Your task to perform on an android device: Go to battery settings Image 0: 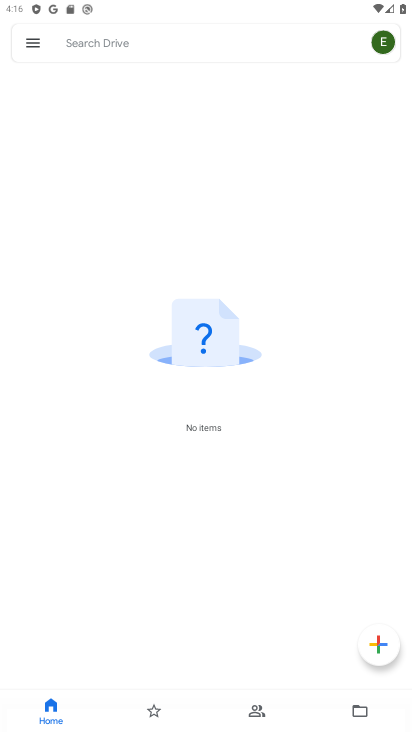
Step 0: press home button
Your task to perform on an android device: Go to battery settings Image 1: 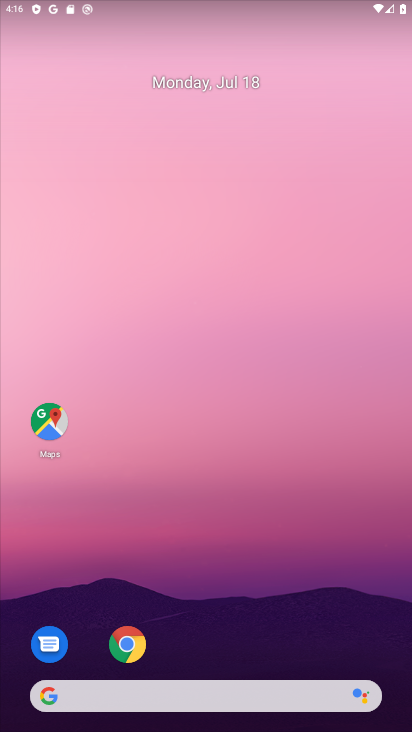
Step 1: drag from (302, 601) to (254, 139)
Your task to perform on an android device: Go to battery settings Image 2: 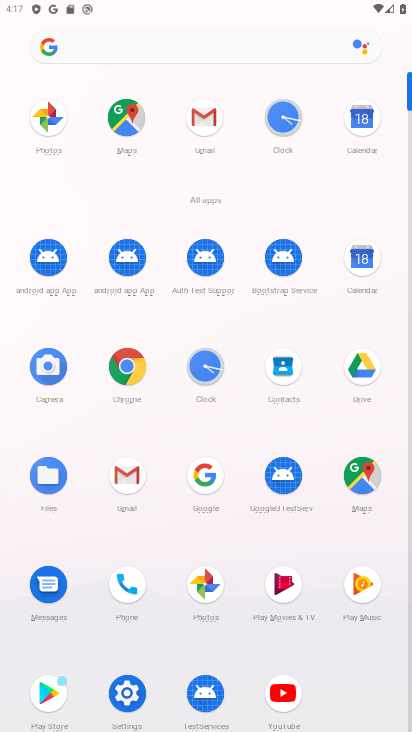
Step 2: click (135, 690)
Your task to perform on an android device: Go to battery settings Image 3: 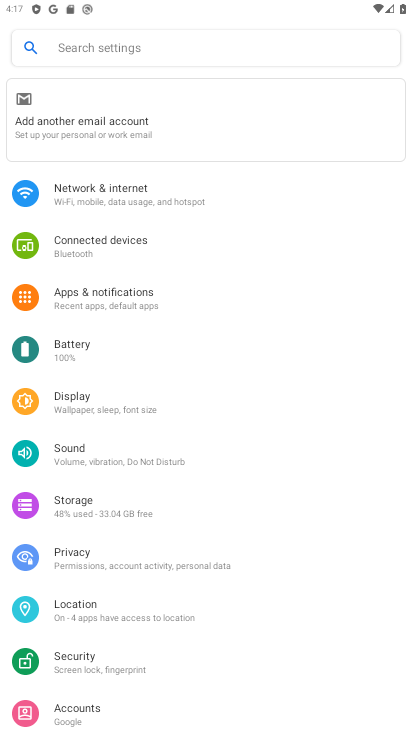
Step 3: click (119, 342)
Your task to perform on an android device: Go to battery settings Image 4: 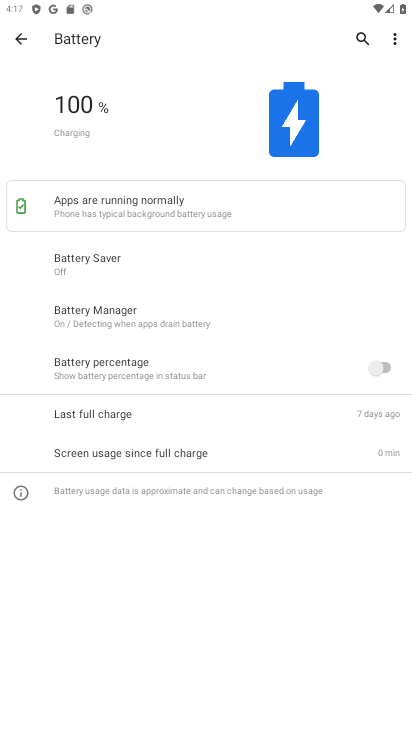
Step 4: task complete